Your task to perform on an android device: Open the map Image 0: 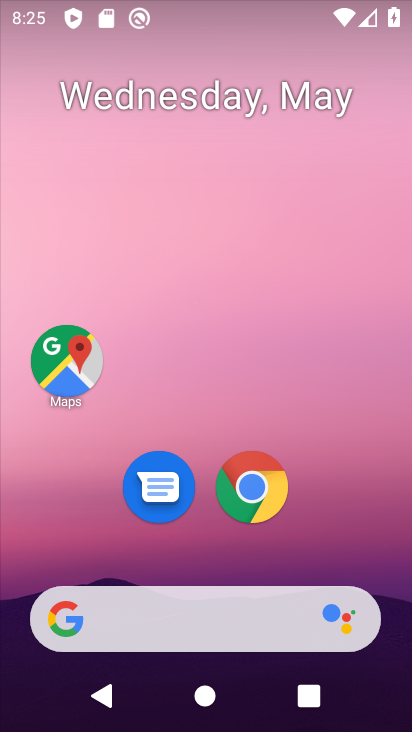
Step 0: click (278, 61)
Your task to perform on an android device: Open the map Image 1: 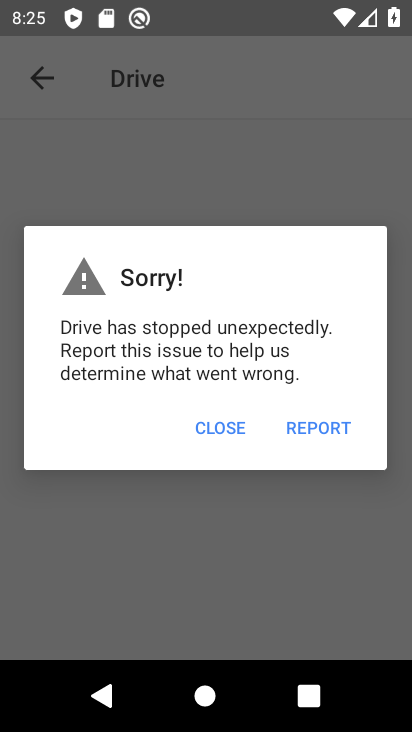
Step 1: press home button
Your task to perform on an android device: Open the map Image 2: 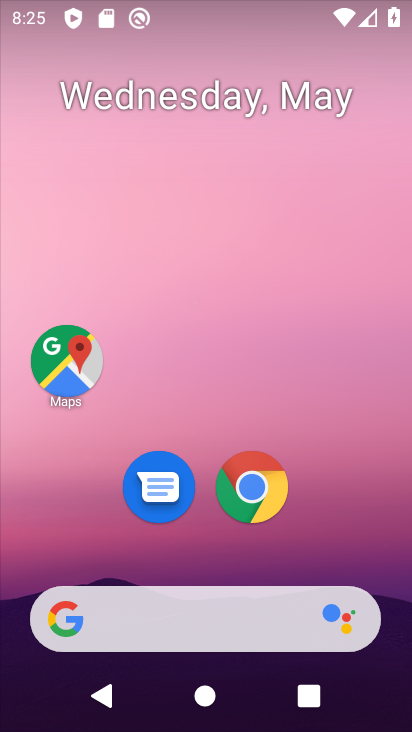
Step 2: click (68, 365)
Your task to perform on an android device: Open the map Image 3: 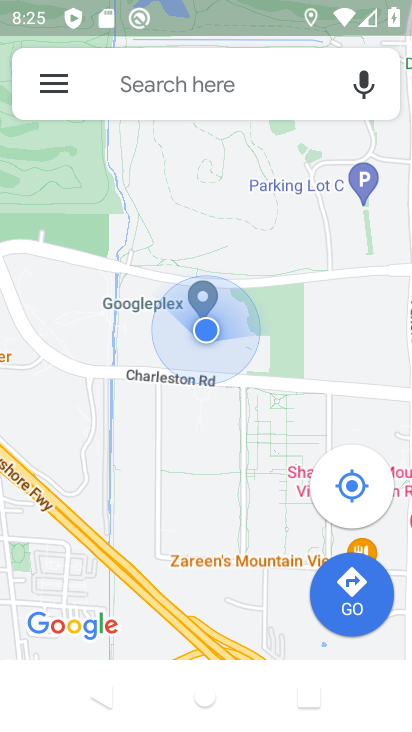
Step 3: drag from (210, 570) to (246, 277)
Your task to perform on an android device: Open the map Image 4: 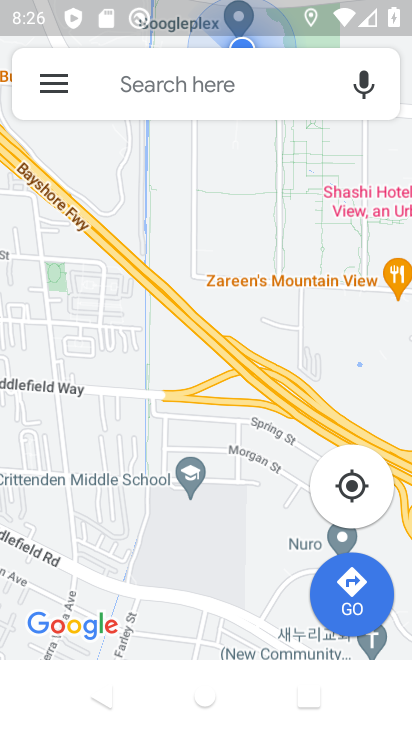
Step 4: drag from (205, 318) to (205, 647)
Your task to perform on an android device: Open the map Image 5: 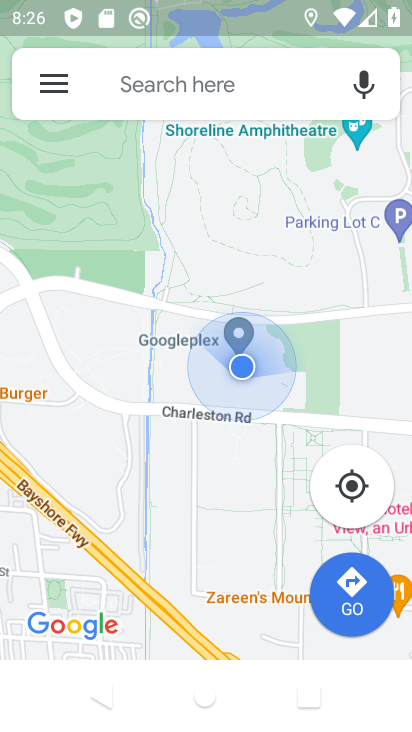
Step 5: click (43, 77)
Your task to perform on an android device: Open the map Image 6: 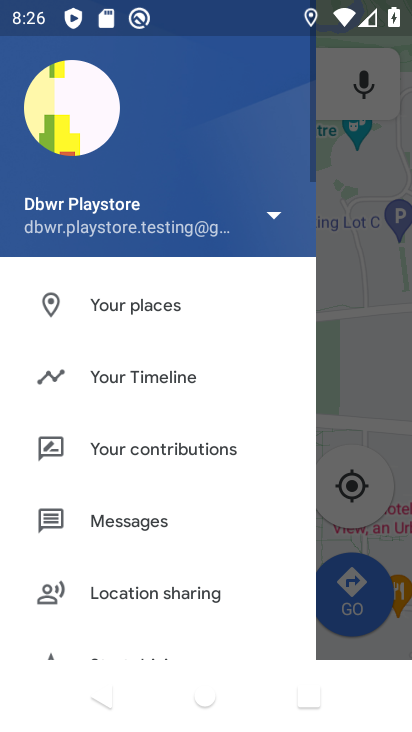
Step 6: drag from (158, 593) to (202, 74)
Your task to perform on an android device: Open the map Image 7: 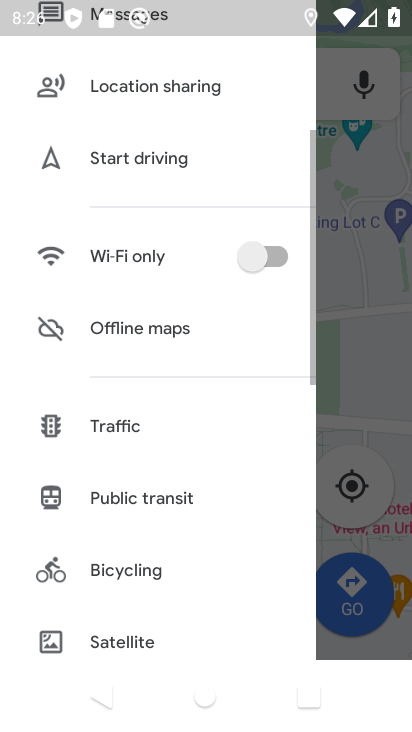
Step 7: drag from (173, 565) to (198, 106)
Your task to perform on an android device: Open the map Image 8: 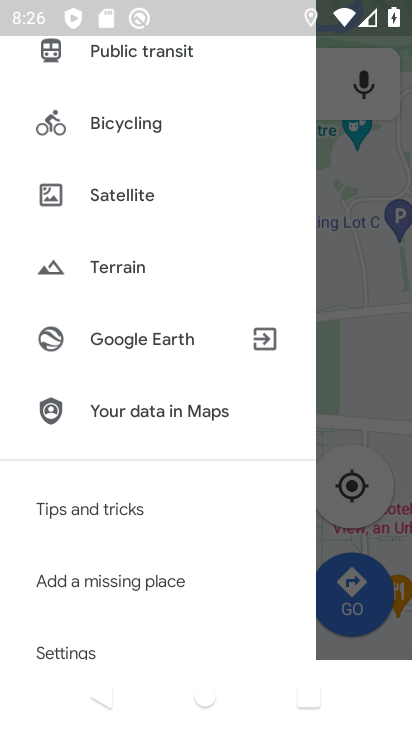
Step 8: drag from (212, 605) to (224, 208)
Your task to perform on an android device: Open the map Image 9: 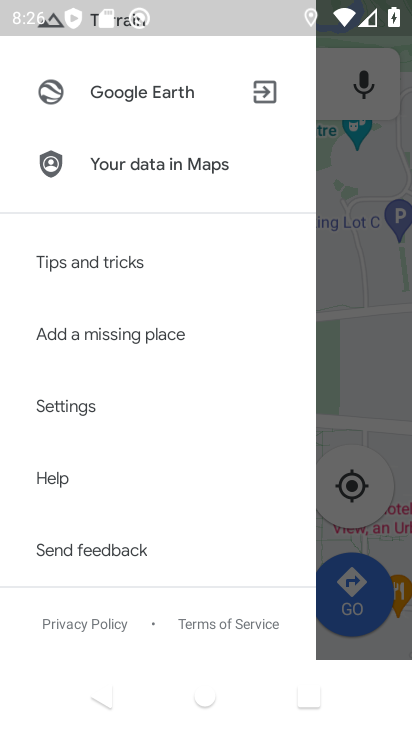
Step 9: click (357, 289)
Your task to perform on an android device: Open the map Image 10: 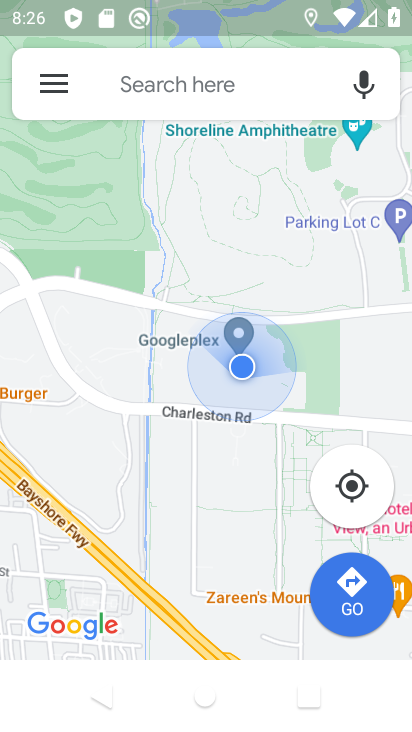
Step 10: click (340, 602)
Your task to perform on an android device: Open the map Image 11: 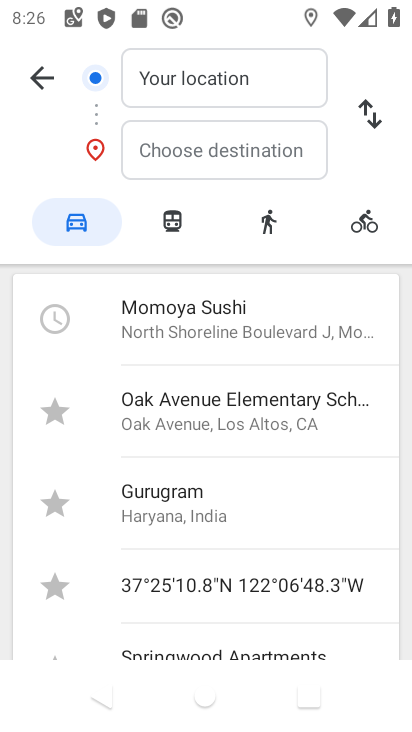
Step 11: click (45, 64)
Your task to perform on an android device: Open the map Image 12: 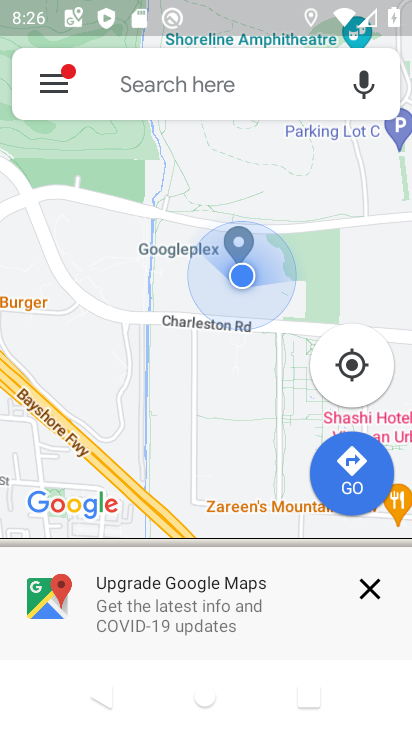
Step 12: task complete